Your task to perform on an android device: delete browsing data in the chrome app Image 0: 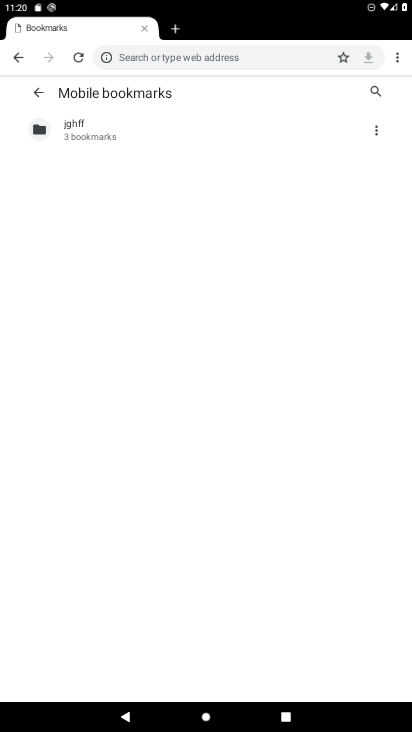
Step 0: click (399, 60)
Your task to perform on an android device: delete browsing data in the chrome app Image 1: 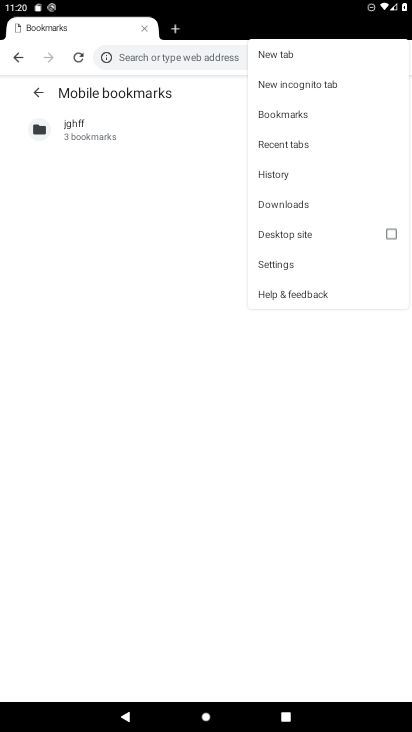
Step 1: click (296, 179)
Your task to perform on an android device: delete browsing data in the chrome app Image 2: 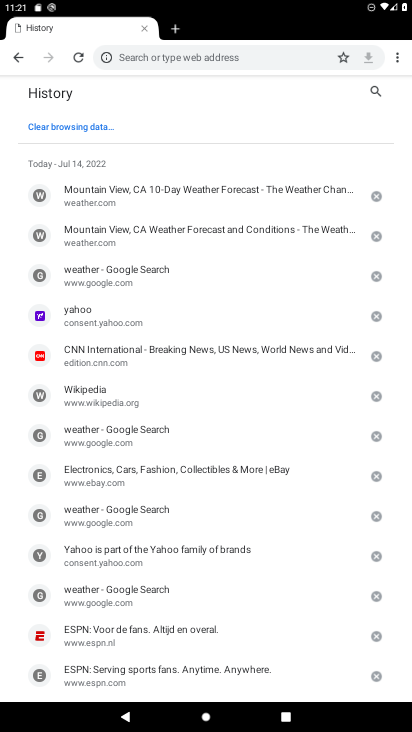
Step 2: click (56, 126)
Your task to perform on an android device: delete browsing data in the chrome app Image 3: 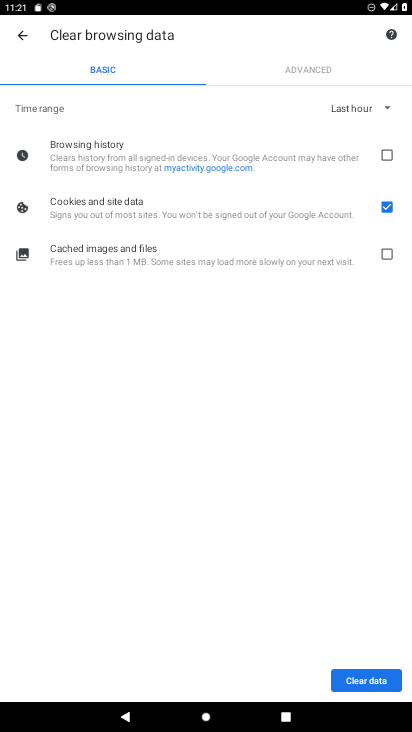
Step 3: click (389, 205)
Your task to perform on an android device: delete browsing data in the chrome app Image 4: 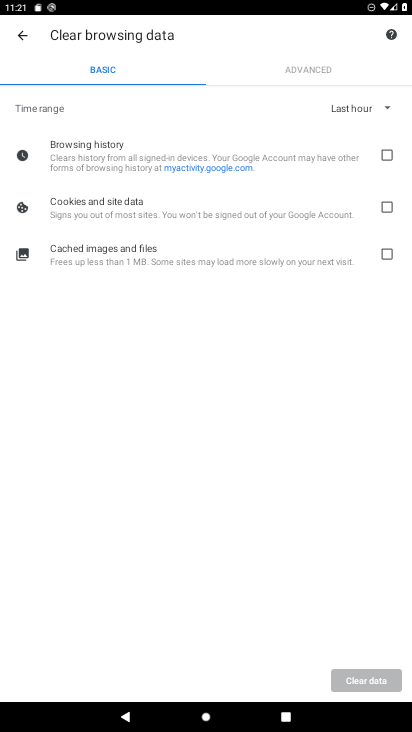
Step 4: click (386, 156)
Your task to perform on an android device: delete browsing data in the chrome app Image 5: 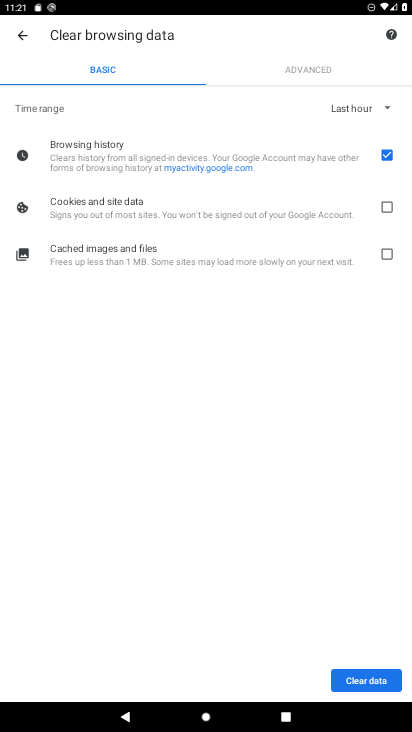
Step 5: click (363, 680)
Your task to perform on an android device: delete browsing data in the chrome app Image 6: 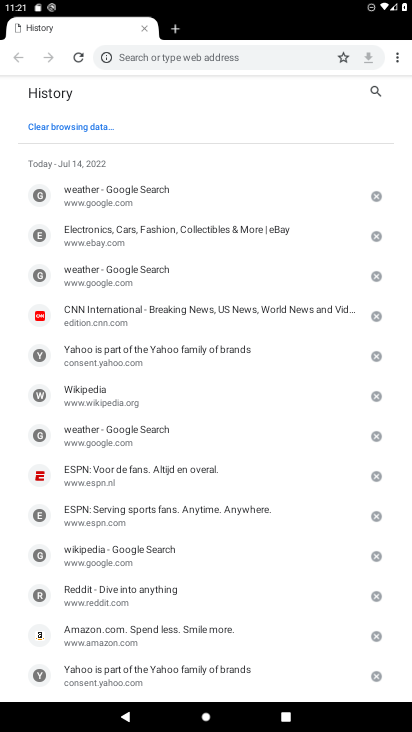
Step 6: click (86, 131)
Your task to perform on an android device: delete browsing data in the chrome app Image 7: 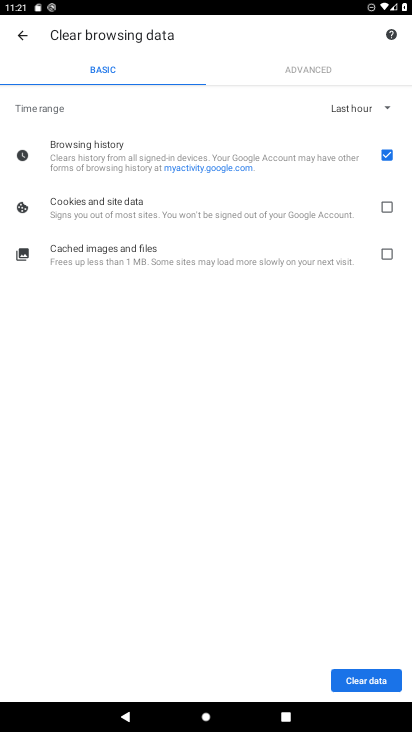
Step 7: click (377, 679)
Your task to perform on an android device: delete browsing data in the chrome app Image 8: 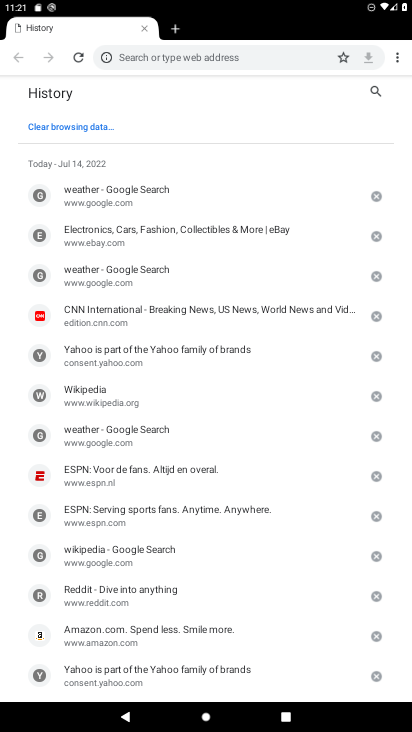
Step 8: click (64, 125)
Your task to perform on an android device: delete browsing data in the chrome app Image 9: 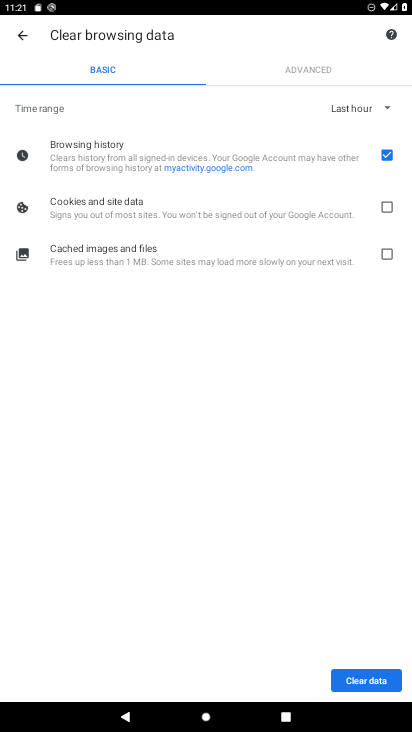
Step 9: click (376, 683)
Your task to perform on an android device: delete browsing data in the chrome app Image 10: 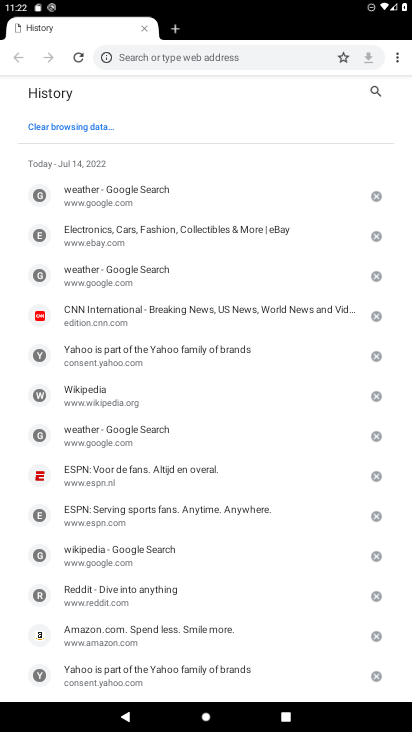
Step 10: task complete